Your task to perform on an android device: Open settings on Google Maps Image 0: 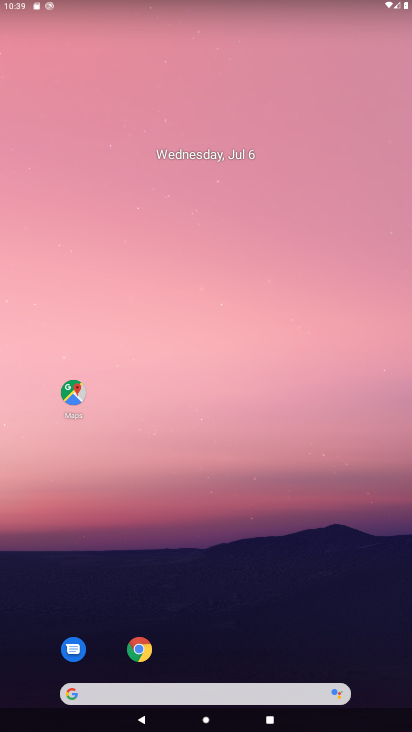
Step 0: click (320, 730)
Your task to perform on an android device: Open settings on Google Maps Image 1: 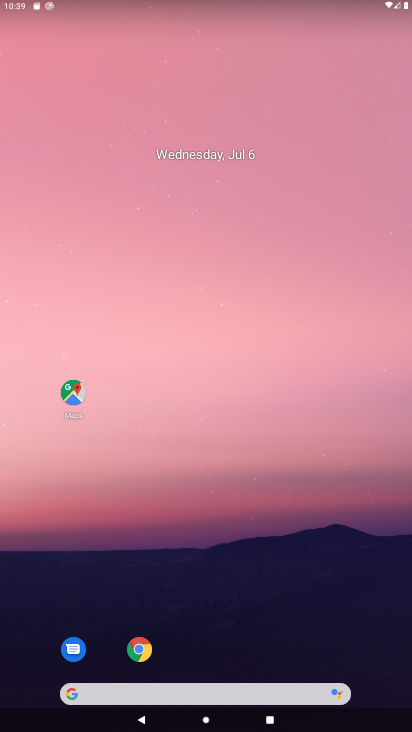
Step 1: drag from (312, 716) to (287, 49)
Your task to perform on an android device: Open settings on Google Maps Image 2: 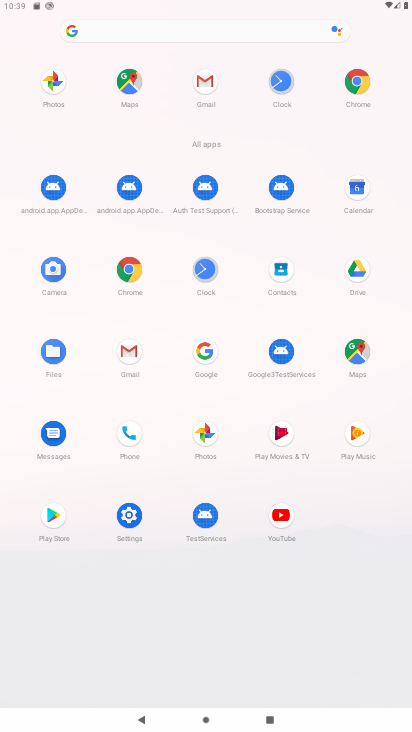
Step 2: click (360, 354)
Your task to perform on an android device: Open settings on Google Maps Image 3: 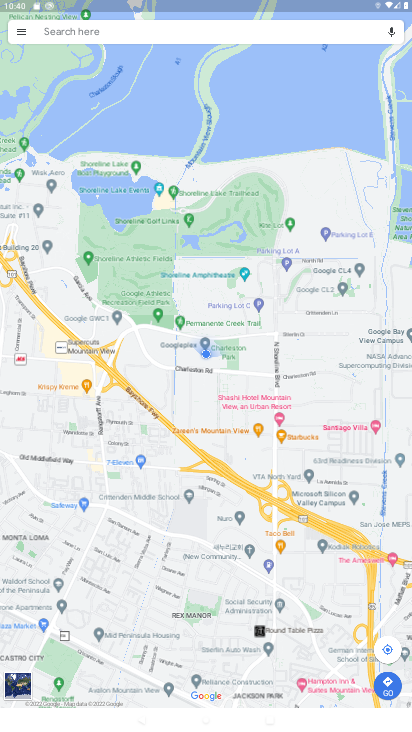
Step 3: click (23, 31)
Your task to perform on an android device: Open settings on Google Maps Image 4: 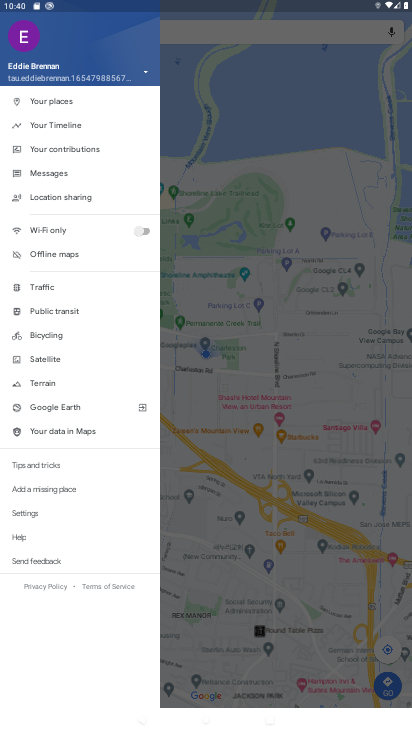
Step 4: click (55, 124)
Your task to perform on an android device: Open settings on Google Maps Image 5: 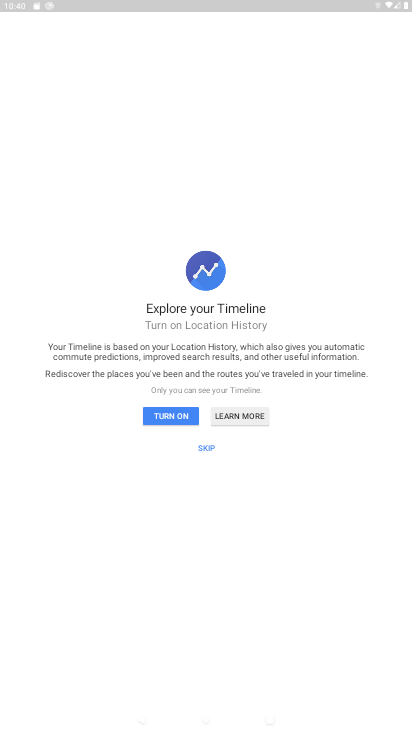
Step 5: click (211, 444)
Your task to perform on an android device: Open settings on Google Maps Image 6: 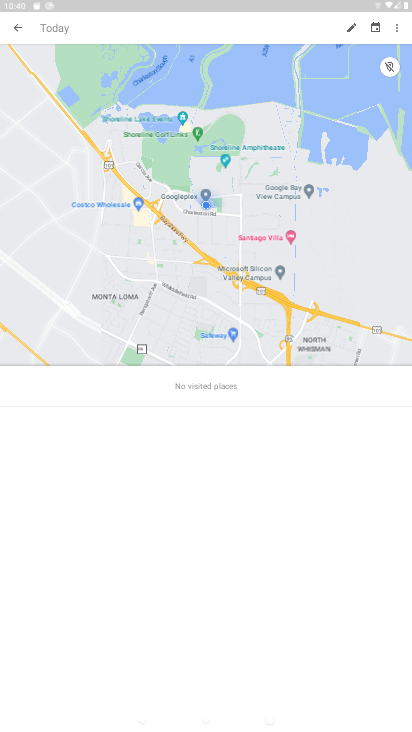
Step 6: click (391, 30)
Your task to perform on an android device: Open settings on Google Maps Image 7: 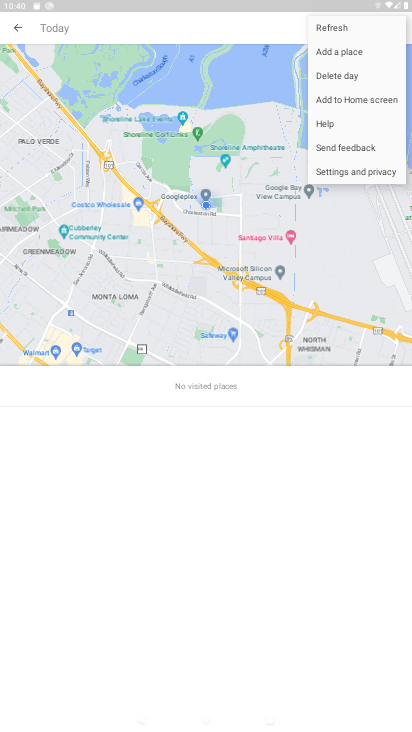
Step 7: click (340, 171)
Your task to perform on an android device: Open settings on Google Maps Image 8: 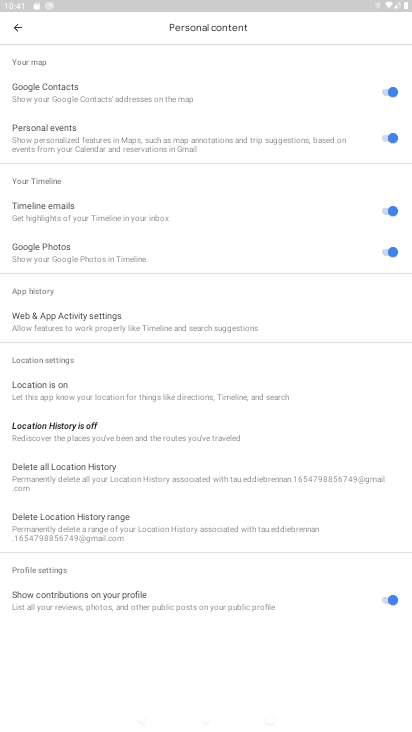
Step 8: task complete